Your task to perform on an android device: Open the phone app and click the voicemail tab. Image 0: 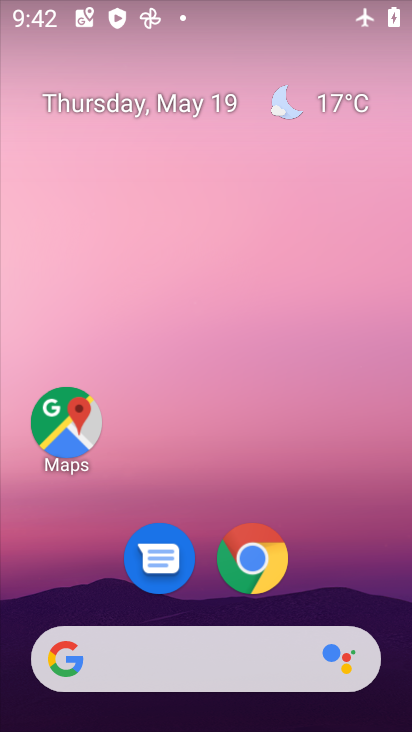
Step 0: drag from (242, 727) to (174, 40)
Your task to perform on an android device: Open the phone app and click the voicemail tab. Image 1: 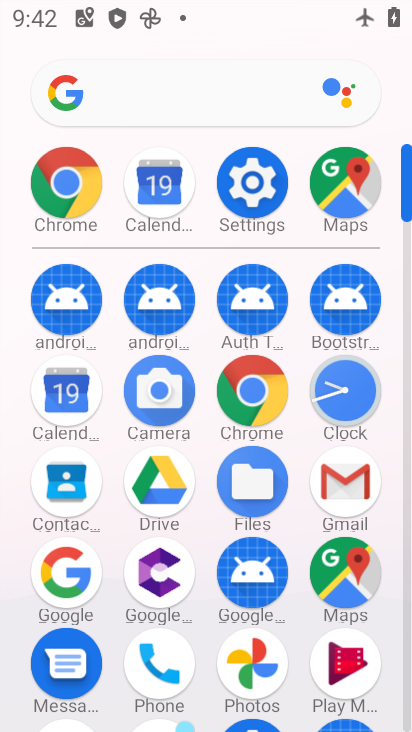
Step 1: click (167, 662)
Your task to perform on an android device: Open the phone app and click the voicemail tab. Image 2: 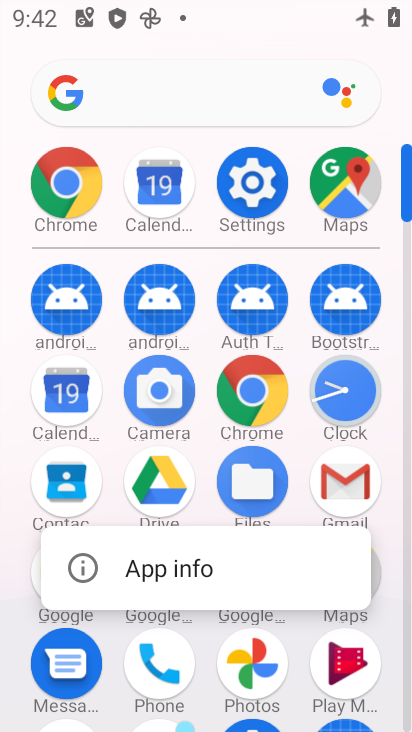
Step 2: click (157, 652)
Your task to perform on an android device: Open the phone app and click the voicemail tab. Image 3: 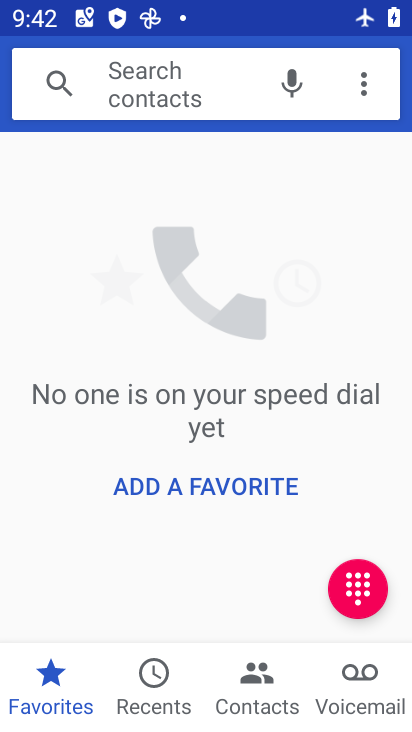
Step 3: click (359, 673)
Your task to perform on an android device: Open the phone app and click the voicemail tab. Image 4: 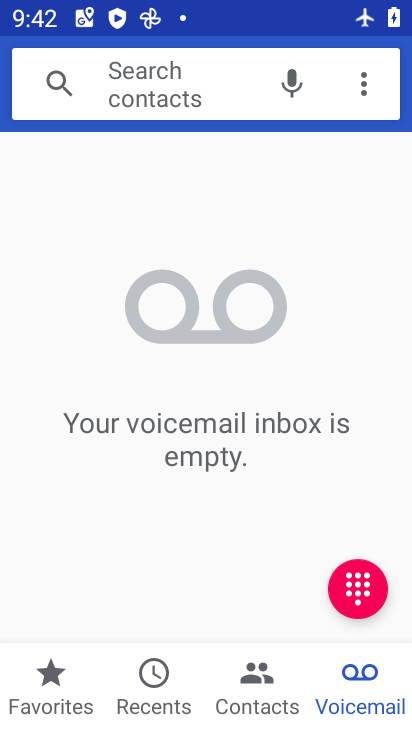
Step 4: task complete